Your task to perform on an android device: Open calendar and show me the first week of next month Image 0: 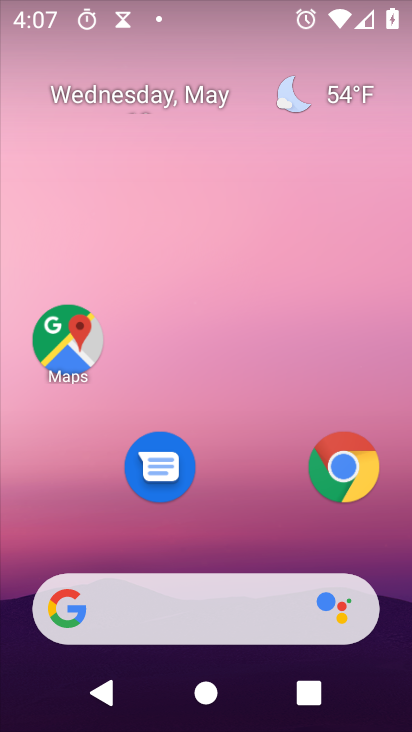
Step 0: drag from (269, 541) to (185, 237)
Your task to perform on an android device: Open calendar and show me the first week of next month Image 1: 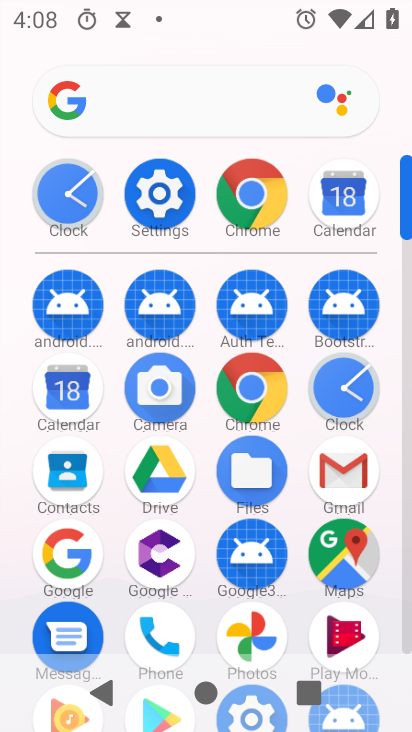
Step 1: click (361, 201)
Your task to perform on an android device: Open calendar and show me the first week of next month Image 2: 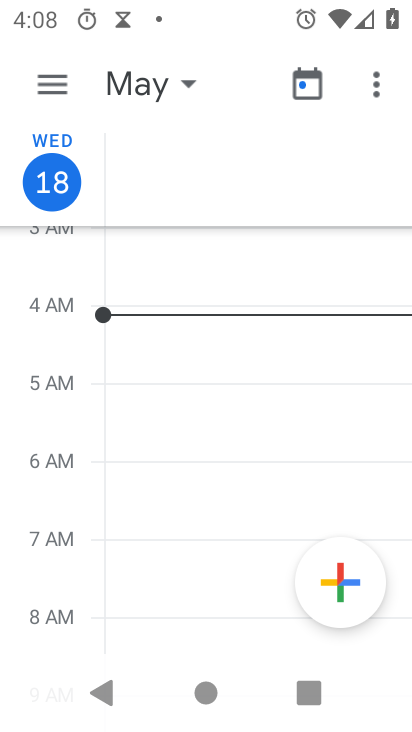
Step 2: click (172, 84)
Your task to perform on an android device: Open calendar and show me the first week of next month Image 3: 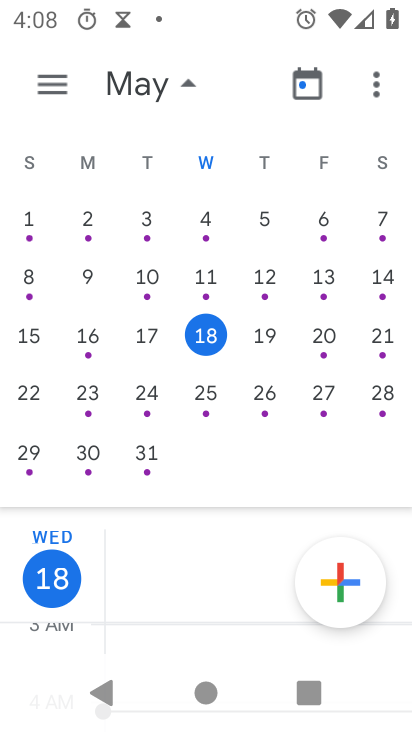
Step 3: drag from (401, 298) to (40, 305)
Your task to perform on an android device: Open calendar and show me the first week of next month Image 4: 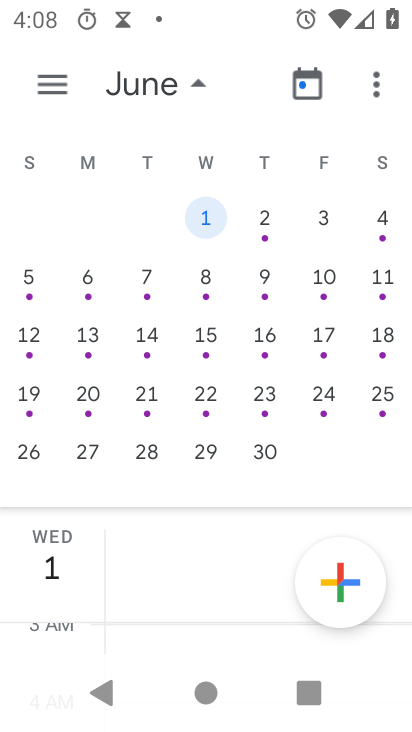
Step 4: click (47, 87)
Your task to perform on an android device: Open calendar and show me the first week of next month Image 5: 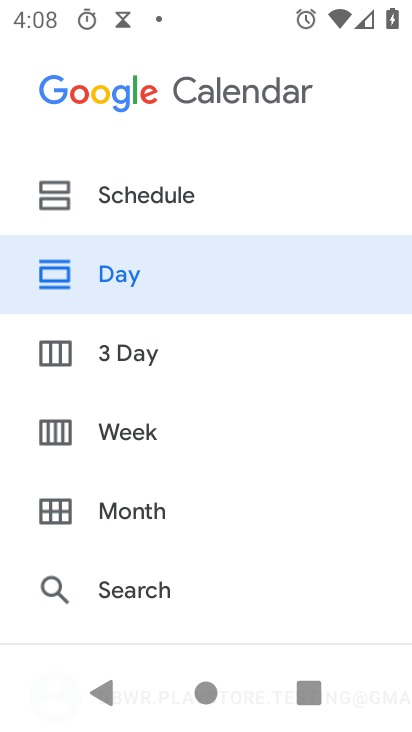
Step 5: click (164, 446)
Your task to perform on an android device: Open calendar and show me the first week of next month Image 6: 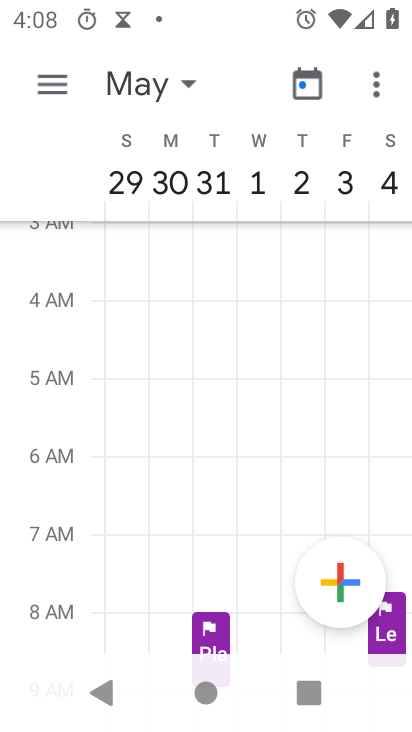
Step 6: click (171, 93)
Your task to perform on an android device: Open calendar and show me the first week of next month Image 7: 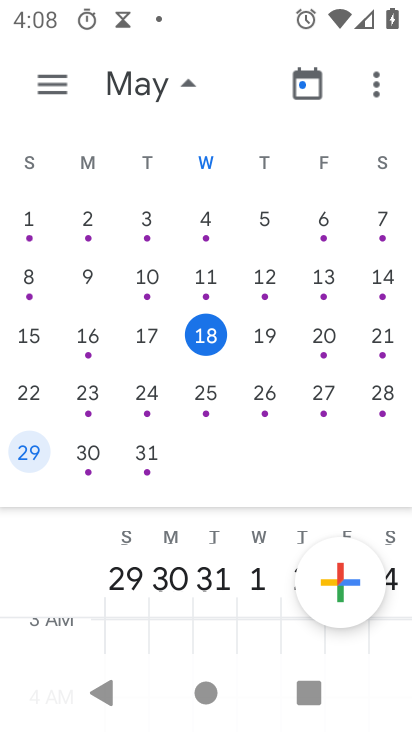
Step 7: drag from (379, 277) to (13, 288)
Your task to perform on an android device: Open calendar and show me the first week of next month Image 8: 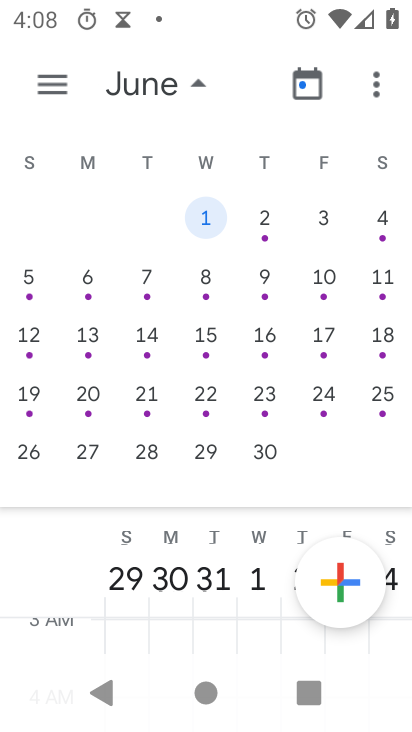
Step 8: click (206, 219)
Your task to perform on an android device: Open calendar and show me the first week of next month Image 9: 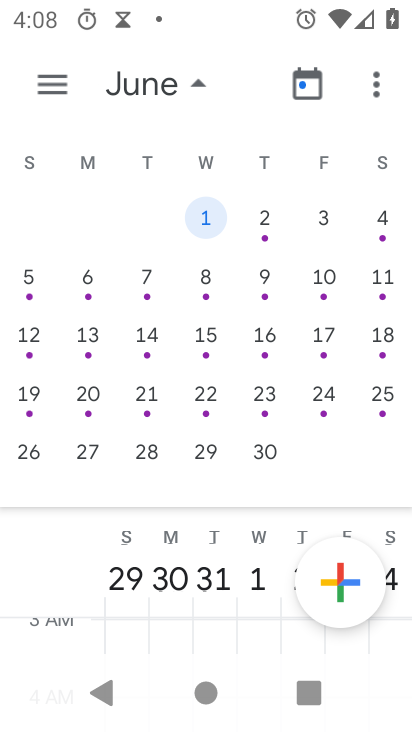
Step 9: click (197, 98)
Your task to perform on an android device: Open calendar and show me the first week of next month Image 10: 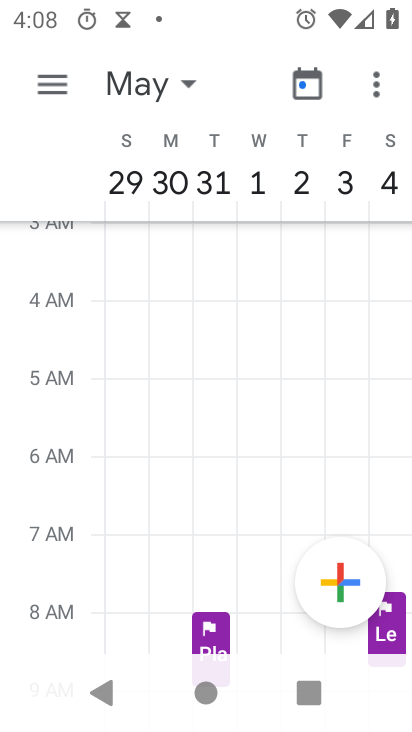
Step 10: task complete